Your task to perform on an android device: snooze an email in the gmail app Image 0: 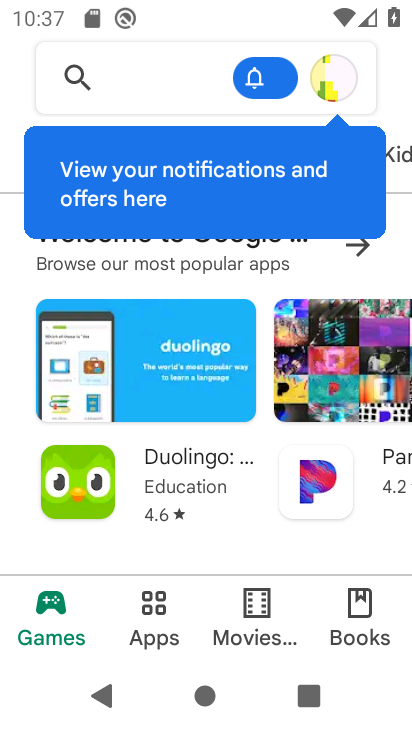
Step 0: press home button
Your task to perform on an android device: snooze an email in the gmail app Image 1: 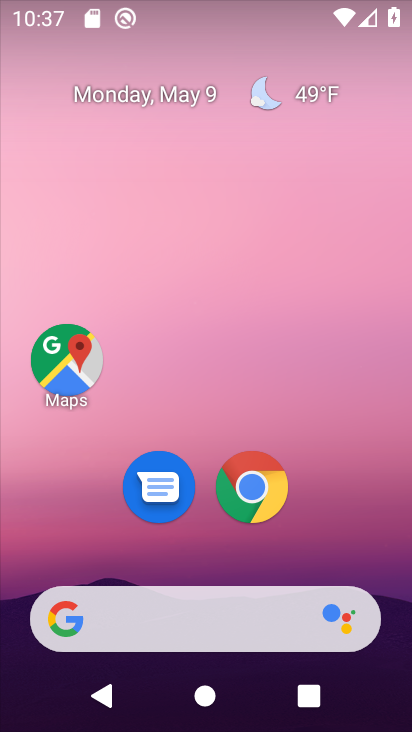
Step 1: drag from (293, 515) to (202, 75)
Your task to perform on an android device: snooze an email in the gmail app Image 2: 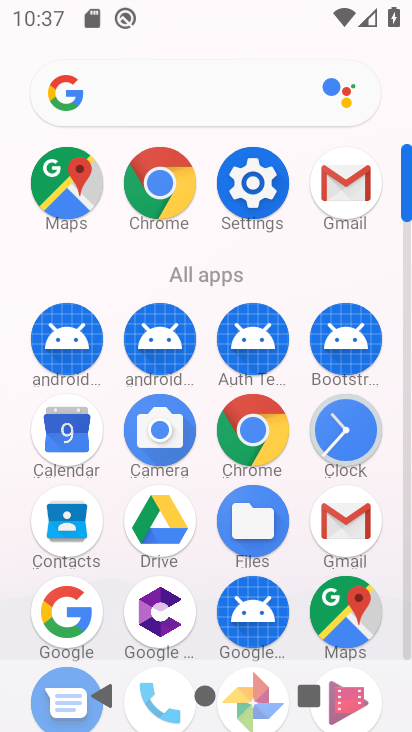
Step 2: click (335, 183)
Your task to perform on an android device: snooze an email in the gmail app Image 3: 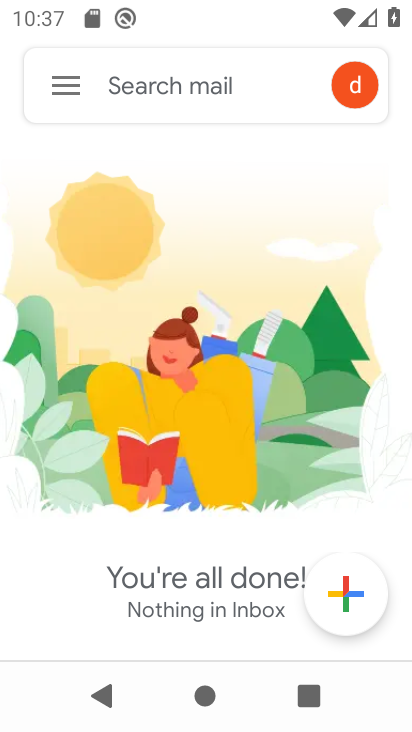
Step 3: click (77, 86)
Your task to perform on an android device: snooze an email in the gmail app Image 4: 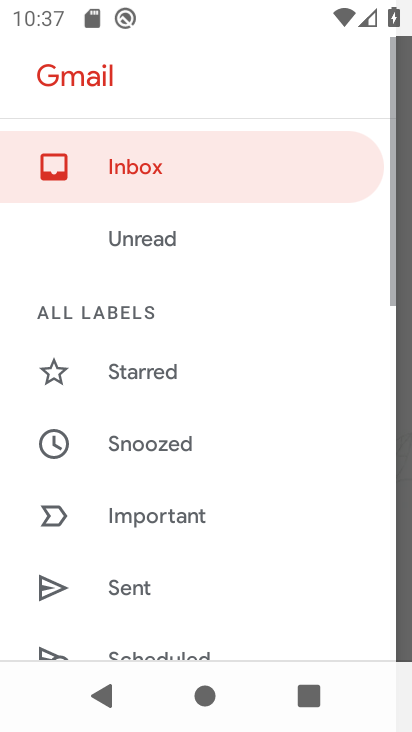
Step 4: click (77, 86)
Your task to perform on an android device: snooze an email in the gmail app Image 5: 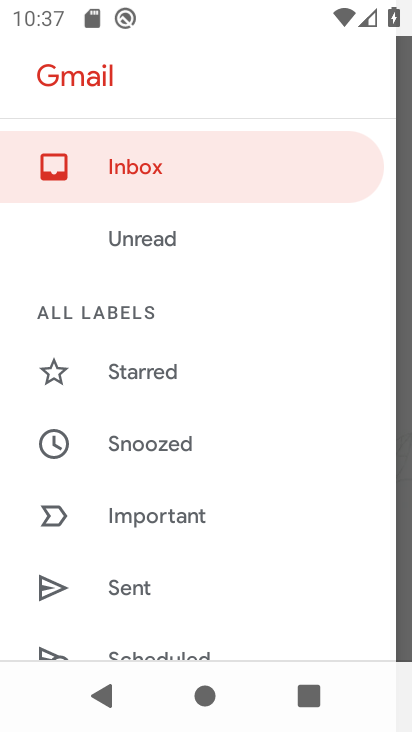
Step 5: task complete